Your task to perform on an android device: Open calendar and show me the fourth week of next month Image 0: 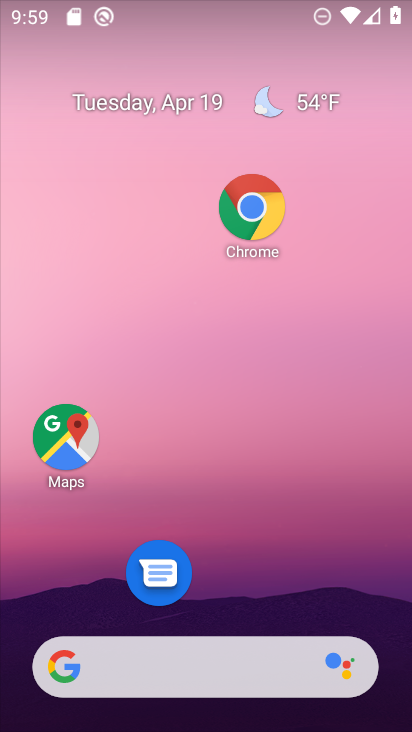
Step 0: drag from (293, 556) to (411, 333)
Your task to perform on an android device: Open calendar and show me the fourth week of next month Image 1: 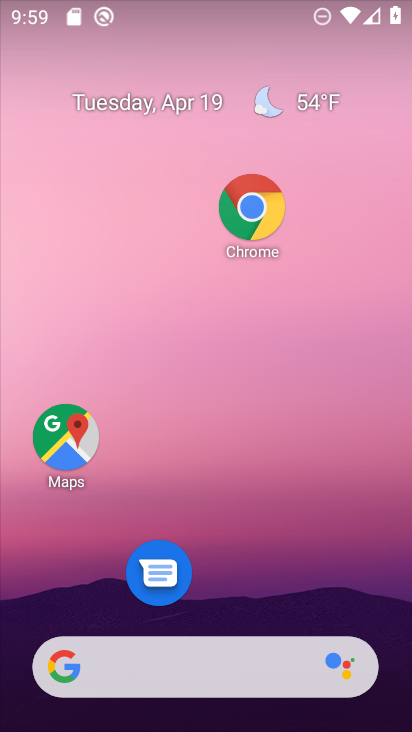
Step 1: drag from (164, 692) to (228, 427)
Your task to perform on an android device: Open calendar and show me the fourth week of next month Image 2: 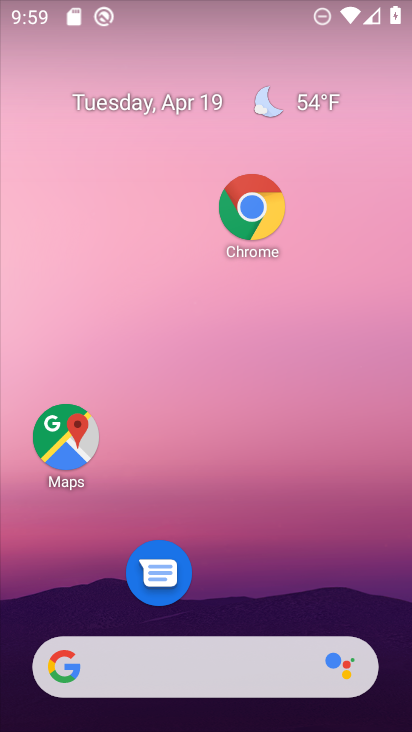
Step 2: drag from (222, 638) to (325, 252)
Your task to perform on an android device: Open calendar and show me the fourth week of next month Image 3: 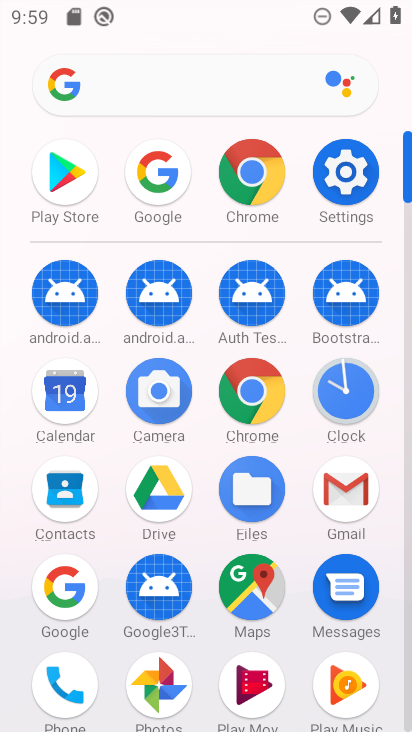
Step 3: click (82, 395)
Your task to perform on an android device: Open calendar and show me the fourth week of next month Image 4: 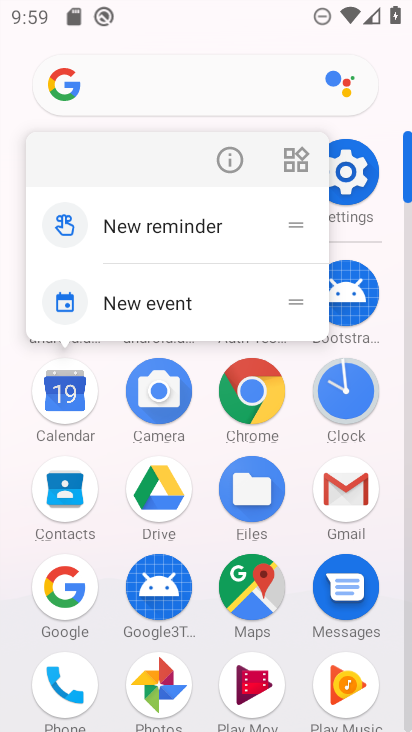
Step 4: click (67, 401)
Your task to perform on an android device: Open calendar and show me the fourth week of next month Image 5: 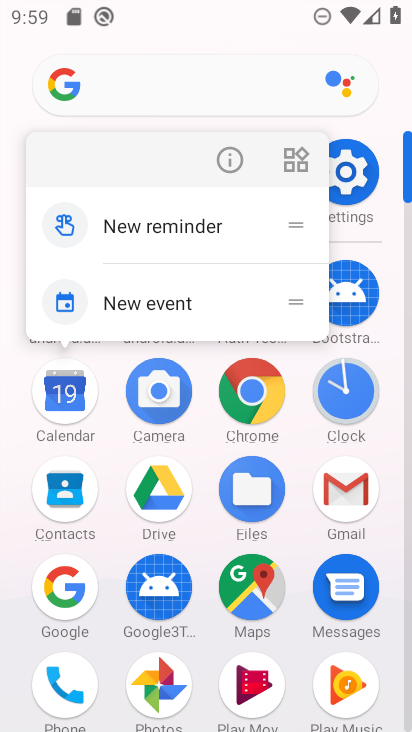
Step 5: click (62, 397)
Your task to perform on an android device: Open calendar and show me the fourth week of next month Image 6: 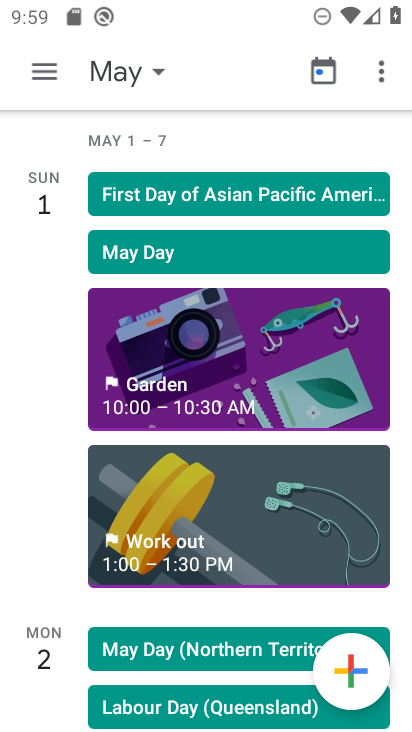
Step 6: click (132, 75)
Your task to perform on an android device: Open calendar and show me the fourth week of next month Image 7: 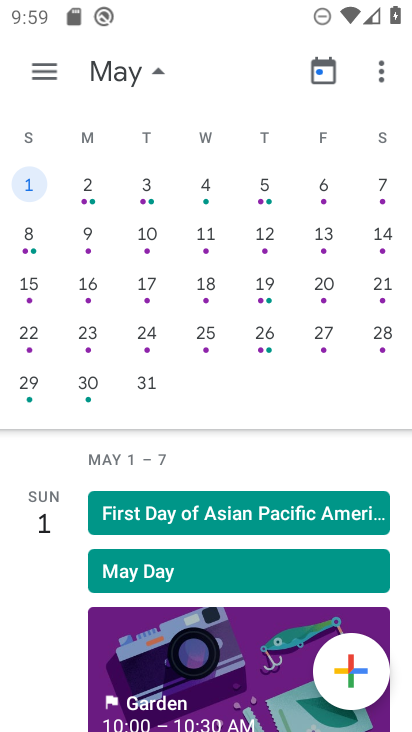
Step 7: click (34, 336)
Your task to perform on an android device: Open calendar and show me the fourth week of next month Image 8: 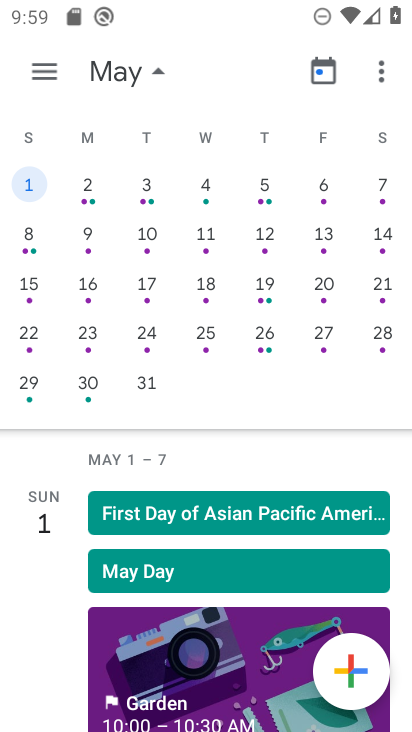
Step 8: click (34, 336)
Your task to perform on an android device: Open calendar and show me the fourth week of next month Image 9: 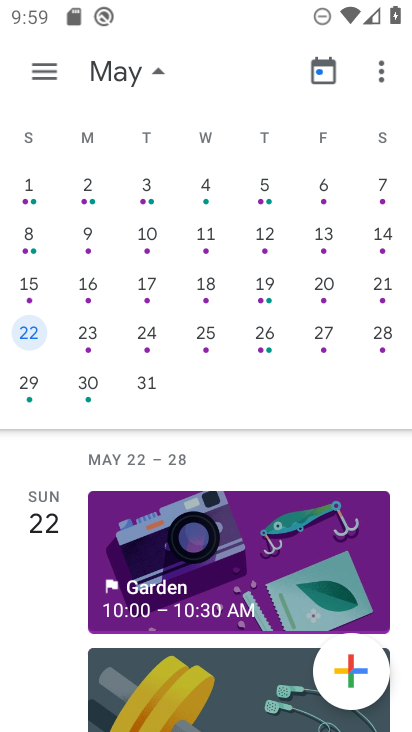
Step 9: click (42, 331)
Your task to perform on an android device: Open calendar and show me the fourth week of next month Image 10: 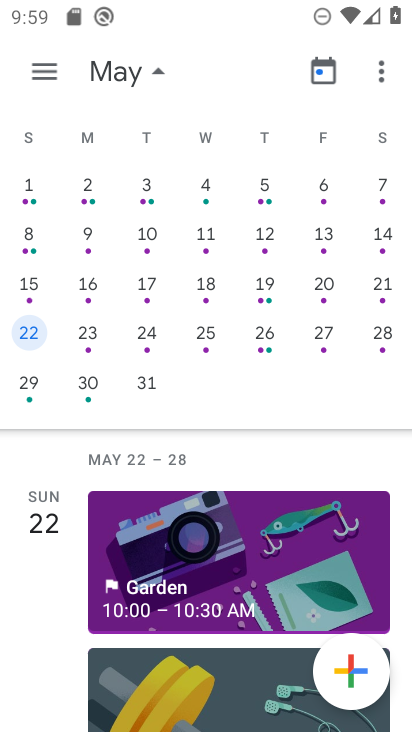
Step 10: task complete